Your task to perform on an android device: turn on notifications settings in the gmail app Image 0: 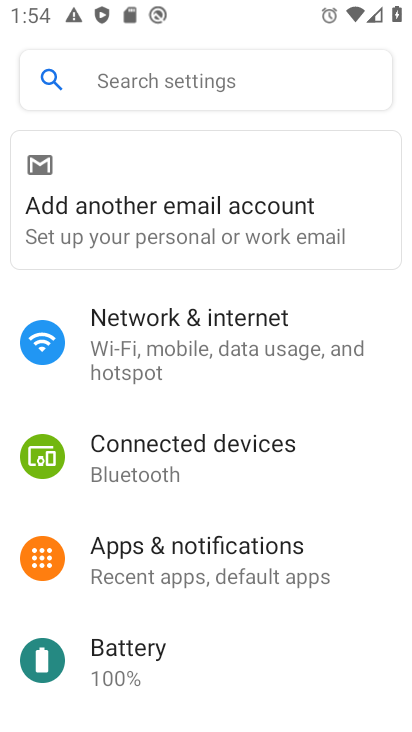
Step 0: press home button
Your task to perform on an android device: turn on notifications settings in the gmail app Image 1: 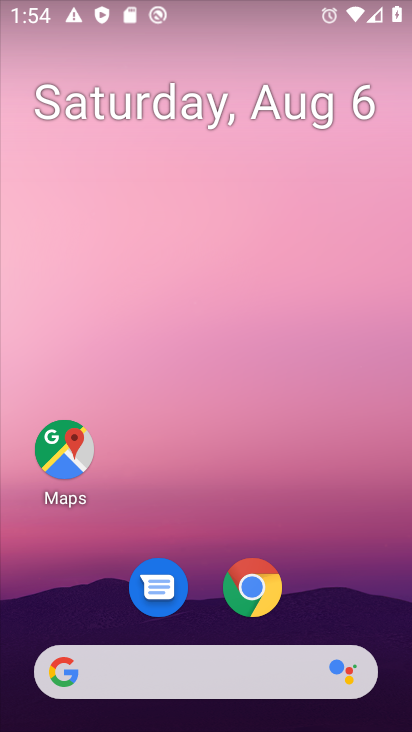
Step 1: drag from (211, 546) to (211, 172)
Your task to perform on an android device: turn on notifications settings in the gmail app Image 2: 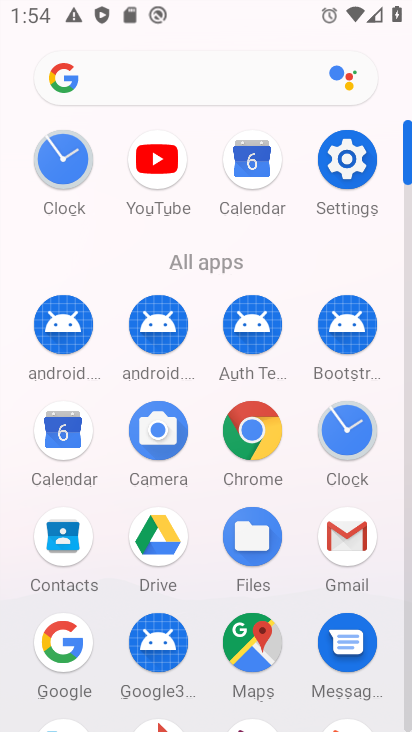
Step 2: click (327, 532)
Your task to perform on an android device: turn on notifications settings in the gmail app Image 3: 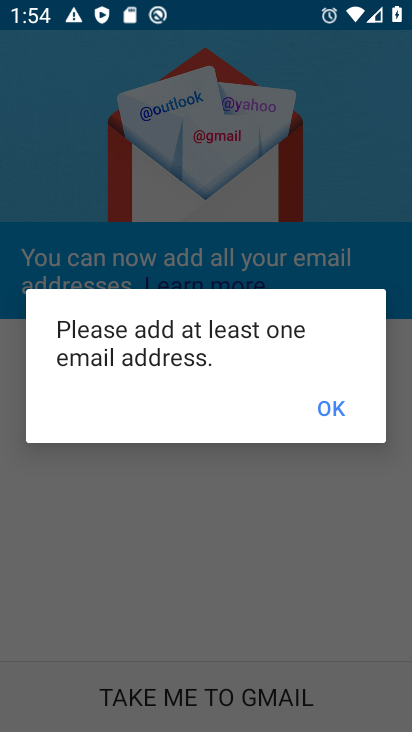
Step 3: click (341, 405)
Your task to perform on an android device: turn on notifications settings in the gmail app Image 4: 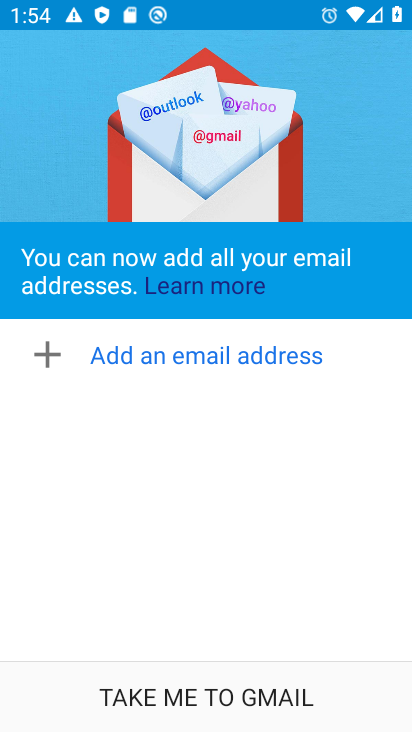
Step 4: click (221, 688)
Your task to perform on an android device: turn on notifications settings in the gmail app Image 5: 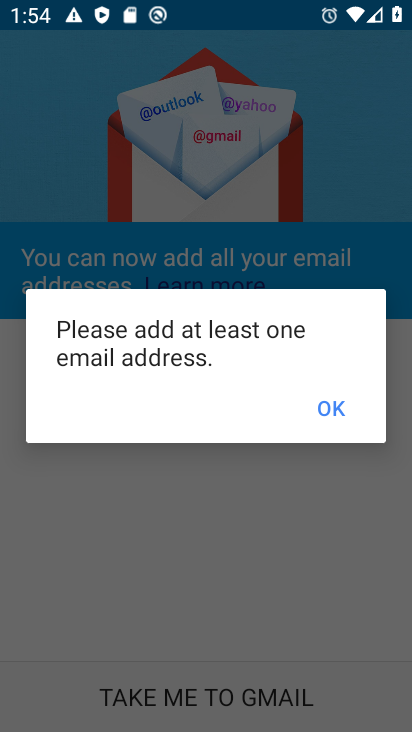
Step 5: task complete